Your task to perform on an android device: What is the news today? Image 0: 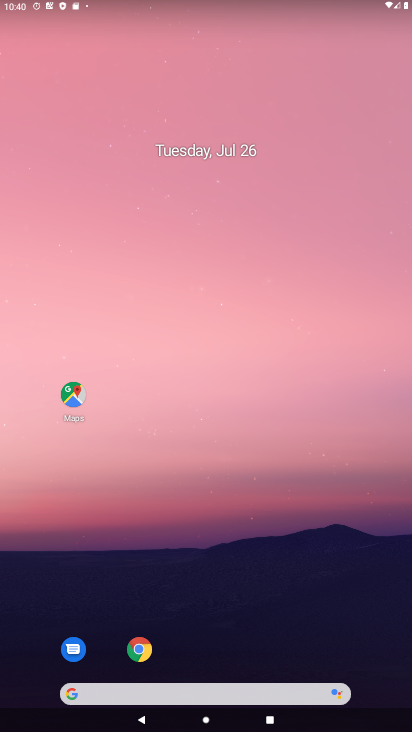
Step 0: drag from (195, 599) to (291, 72)
Your task to perform on an android device: What is the news today? Image 1: 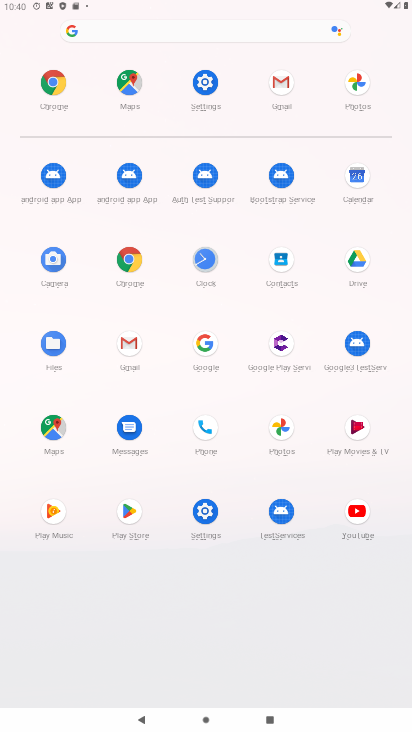
Step 1: click (118, 25)
Your task to perform on an android device: What is the news today? Image 2: 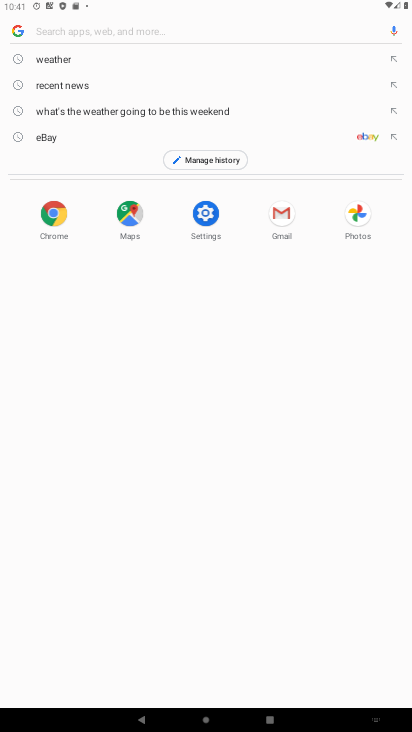
Step 2: type "news today?"
Your task to perform on an android device: What is the news today? Image 3: 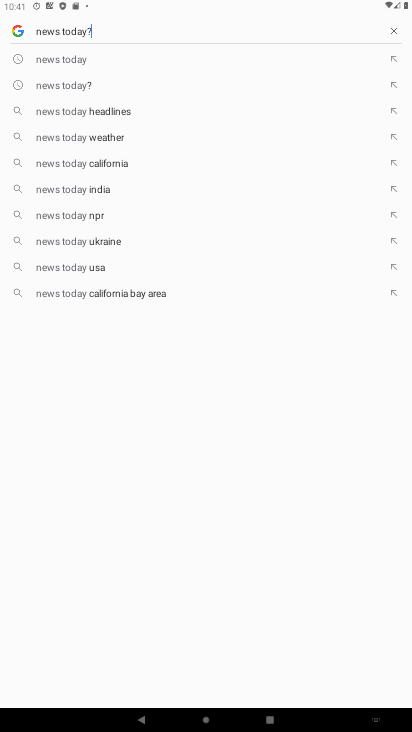
Step 3: type ""
Your task to perform on an android device: What is the news today? Image 4: 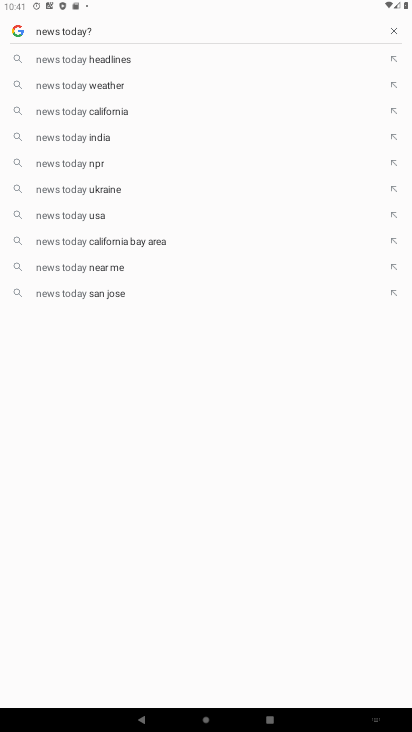
Step 4: click (76, 134)
Your task to perform on an android device: What is the news today? Image 5: 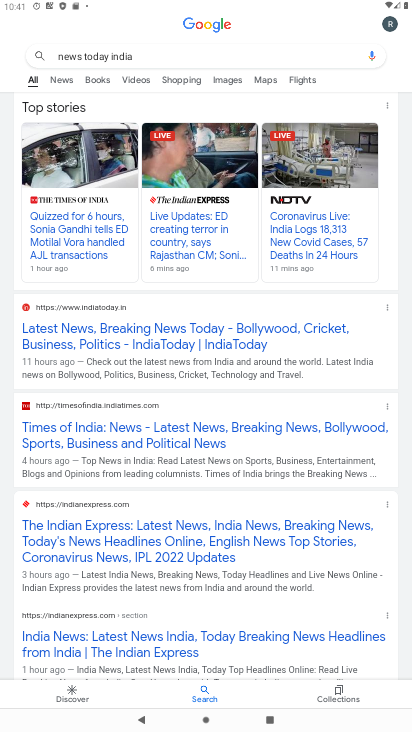
Step 5: task complete